Your task to perform on an android device: Open Yahoo.com Image 0: 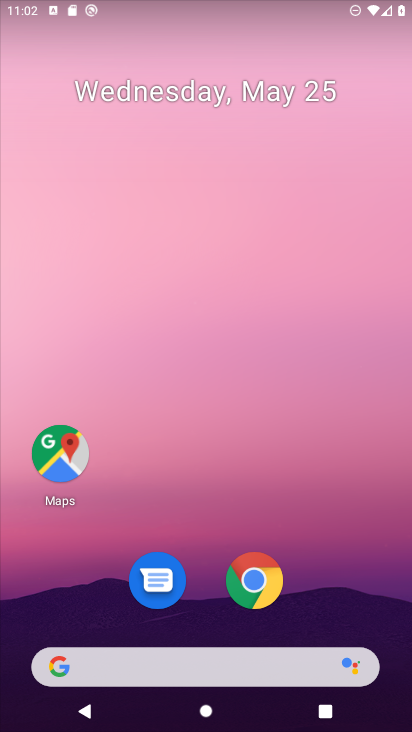
Step 0: click (243, 571)
Your task to perform on an android device: Open Yahoo.com Image 1: 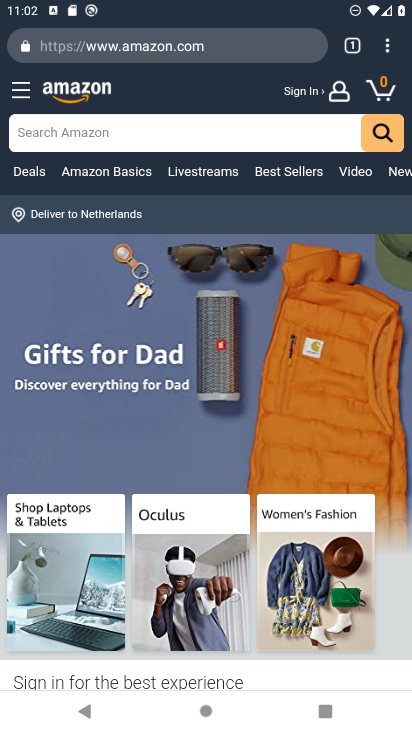
Step 1: click (352, 47)
Your task to perform on an android device: Open Yahoo.com Image 2: 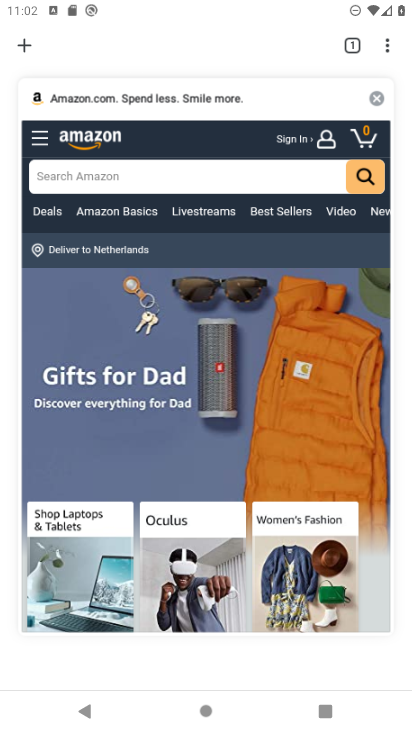
Step 2: click (20, 45)
Your task to perform on an android device: Open Yahoo.com Image 3: 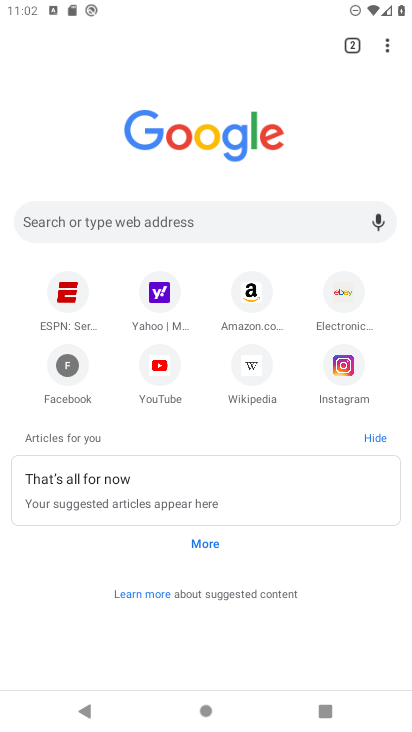
Step 3: click (153, 302)
Your task to perform on an android device: Open Yahoo.com Image 4: 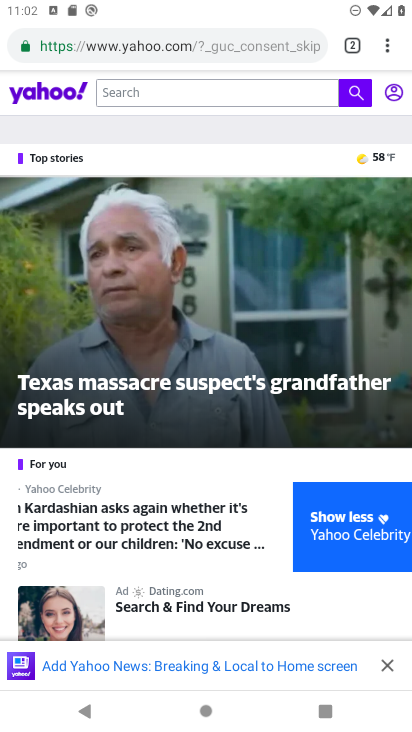
Step 4: task complete